Your task to perform on an android device: Show me recent news Image 0: 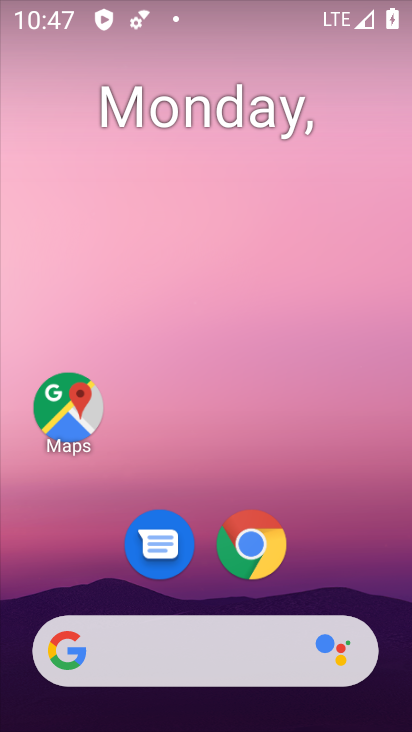
Step 0: drag from (407, 481) to (396, 150)
Your task to perform on an android device: Show me recent news Image 1: 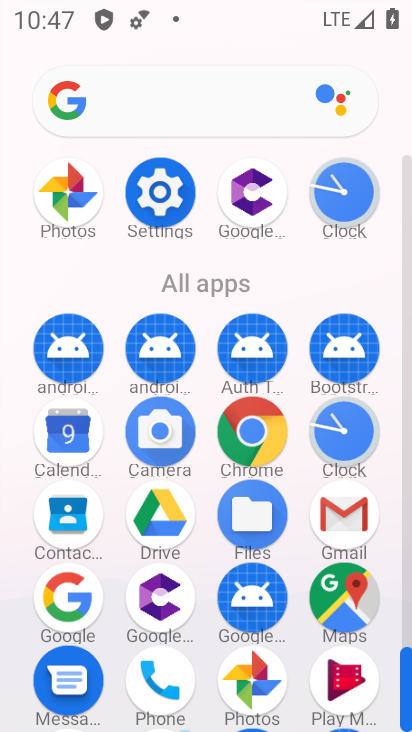
Step 1: click (58, 584)
Your task to perform on an android device: Show me recent news Image 2: 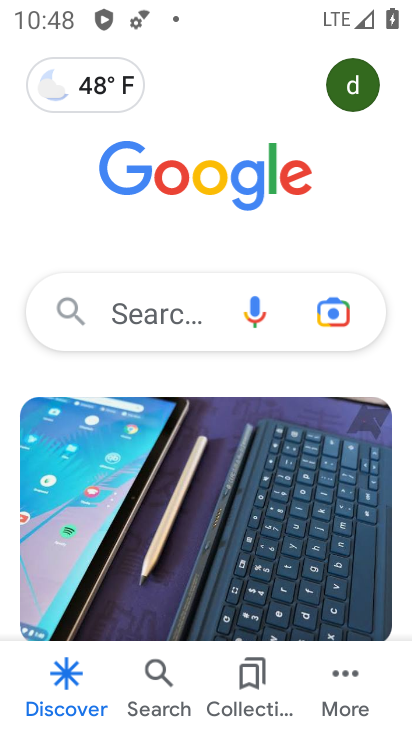
Step 2: task complete